Your task to perform on an android device: toggle improve location accuracy Image 0: 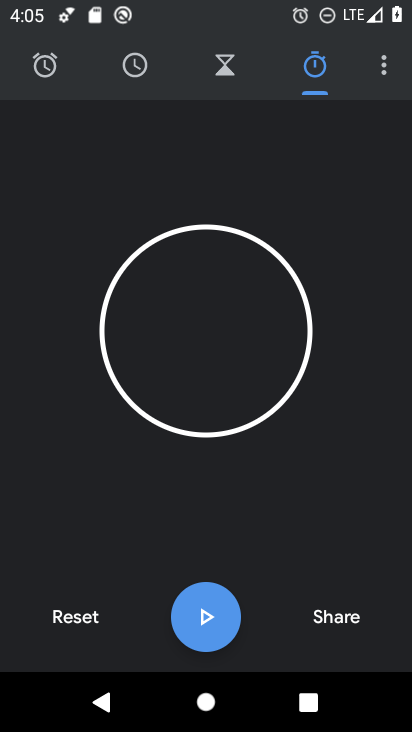
Step 0: press home button
Your task to perform on an android device: toggle improve location accuracy Image 1: 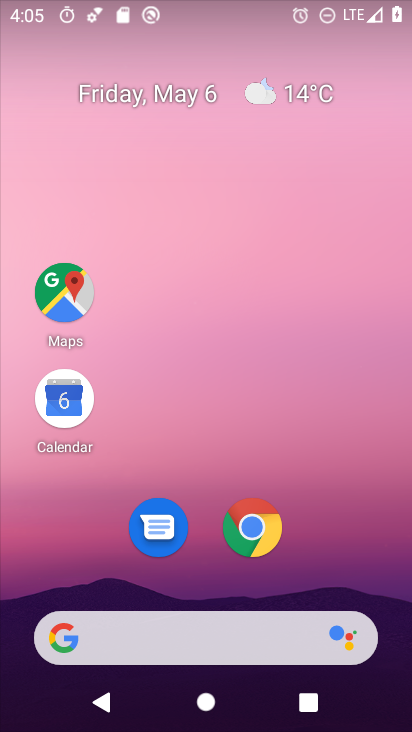
Step 1: drag from (311, 525) to (394, 119)
Your task to perform on an android device: toggle improve location accuracy Image 2: 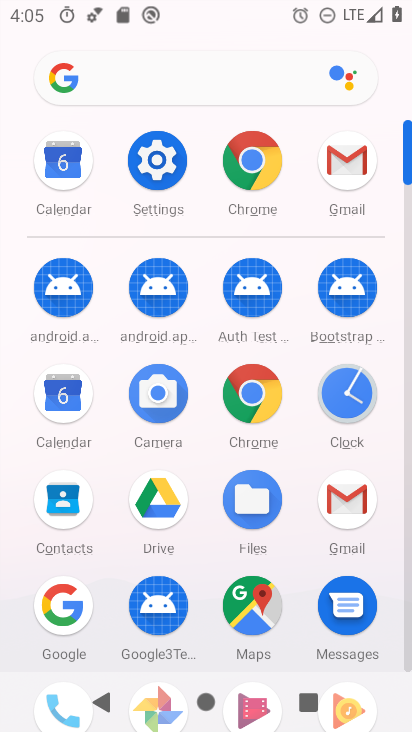
Step 2: click (155, 147)
Your task to perform on an android device: toggle improve location accuracy Image 3: 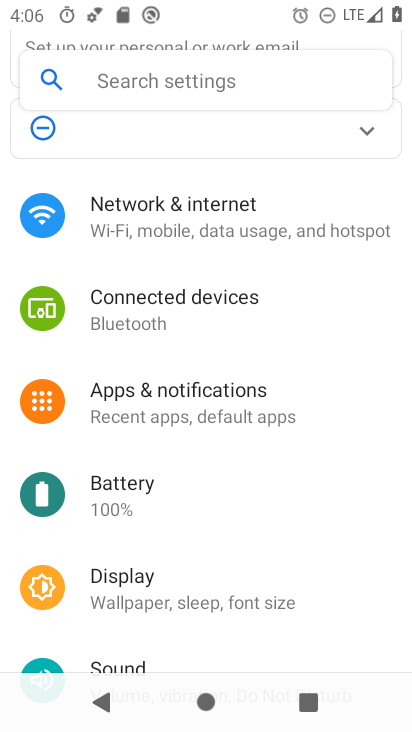
Step 3: drag from (246, 604) to (265, 270)
Your task to perform on an android device: toggle improve location accuracy Image 4: 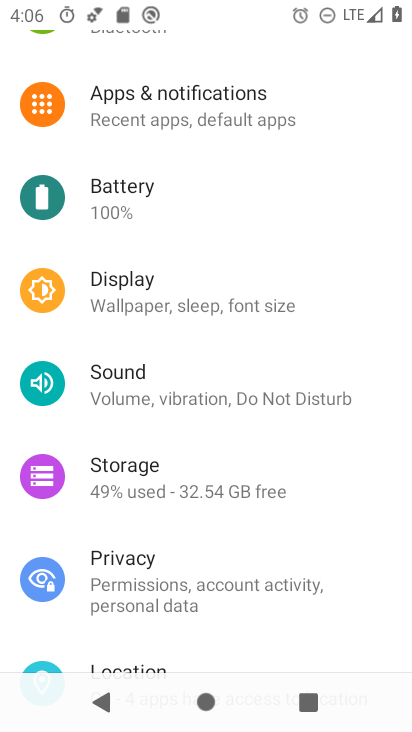
Step 4: drag from (215, 548) to (277, 156)
Your task to perform on an android device: toggle improve location accuracy Image 5: 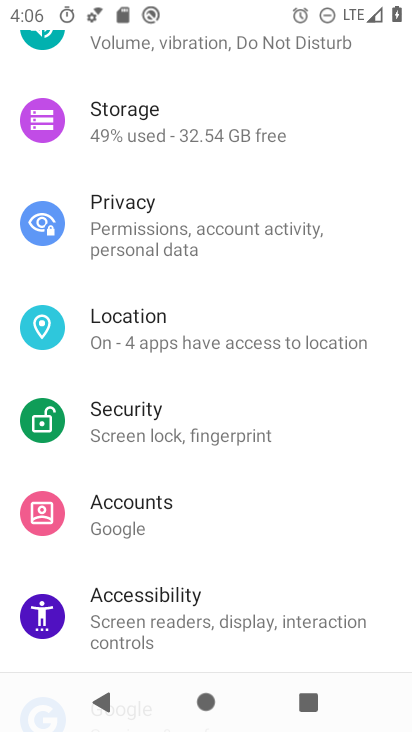
Step 5: click (166, 326)
Your task to perform on an android device: toggle improve location accuracy Image 6: 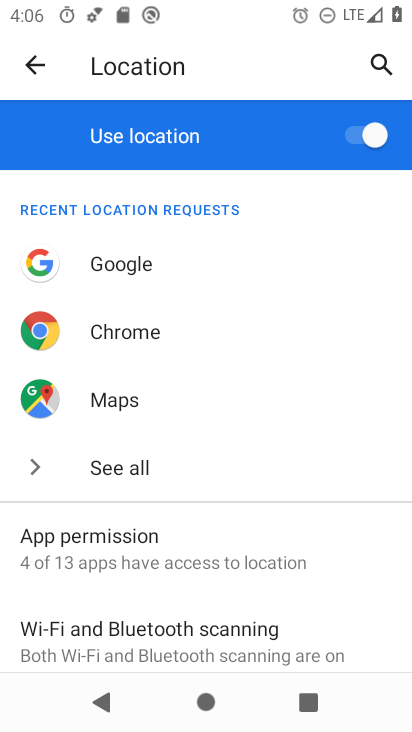
Step 6: drag from (298, 666) to (349, 204)
Your task to perform on an android device: toggle improve location accuracy Image 7: 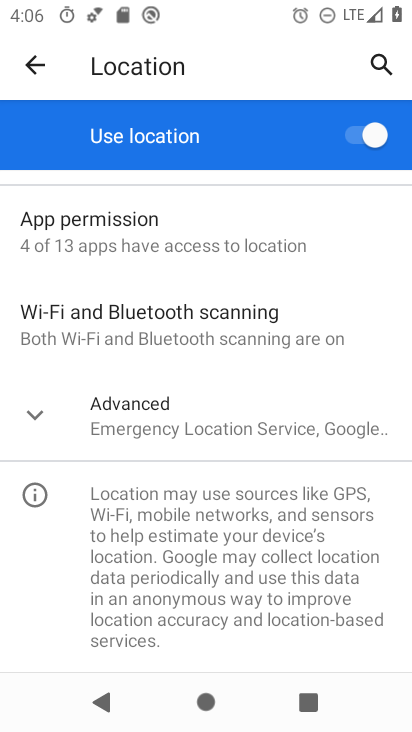
Step 7: click (163, 411)
Your task to perform on an android device: toggle improve location accuracy Image 8: 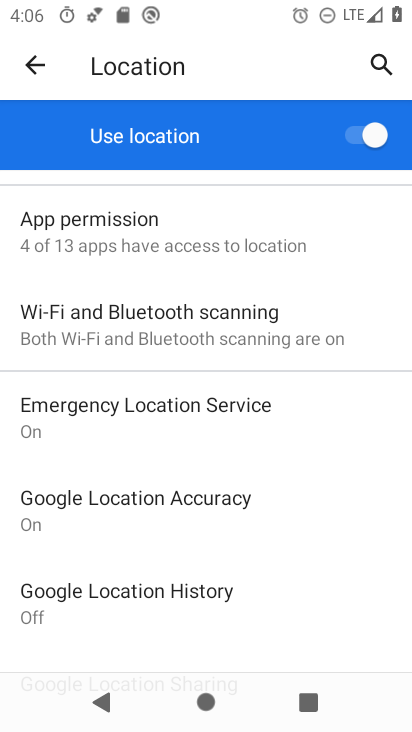
Step 8: drag from (268, 576) to (316, 297)
Your task to perform on an android device: toggle improve location accuracy Image 9: 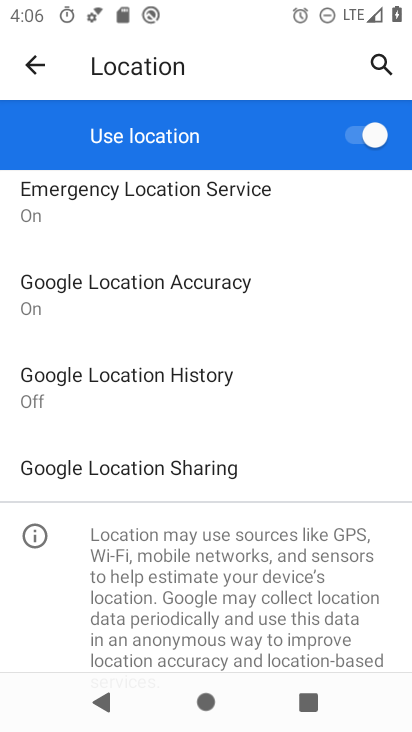
Step 9: click (203, 285)
Your task to perform on an android device: toggle improve location accuracy Image 10: 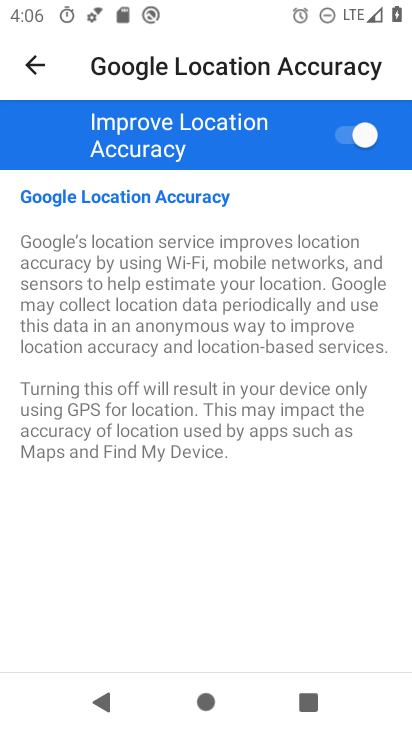
Step 10: click (361, 129)
Your task to perform on an android device: toggle improve location accuracy Image 11: 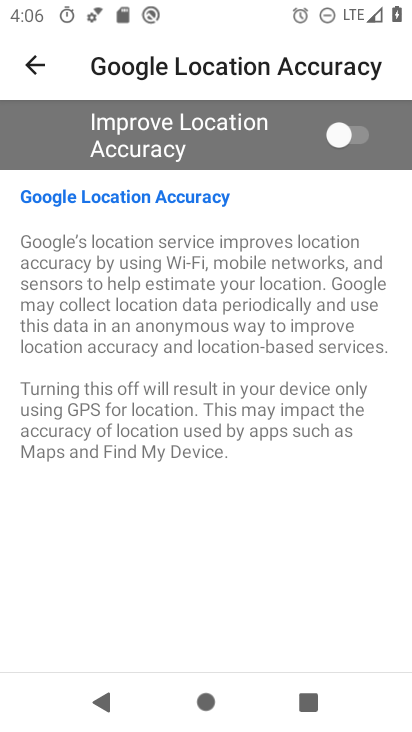
Step 11: task complete